Your task to perform on an android device: turn on airplane mode Image 0: 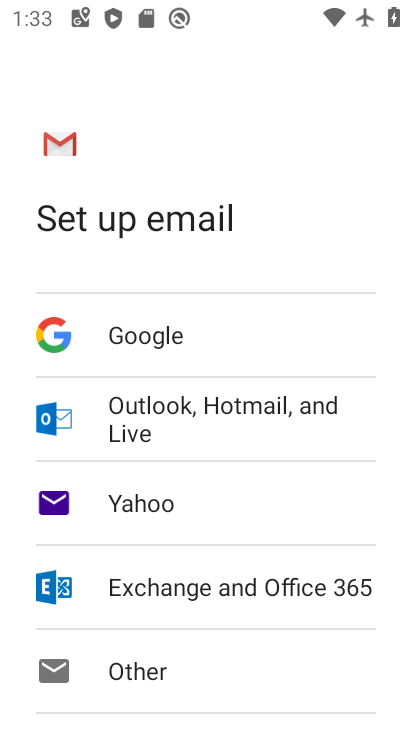
Step 0: press home button
Your task to perform on an android device: turn on airplane mode Image 1: 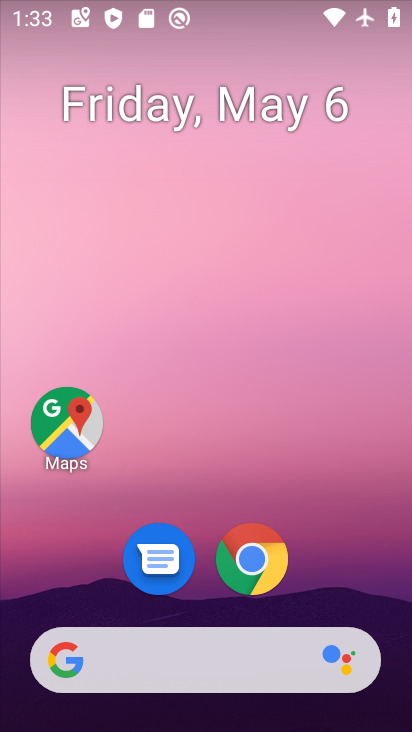
Step 1: drag from (187, 651) to (340, 28)
Your task to perform on an android device: turn on airplane mode Image 2: 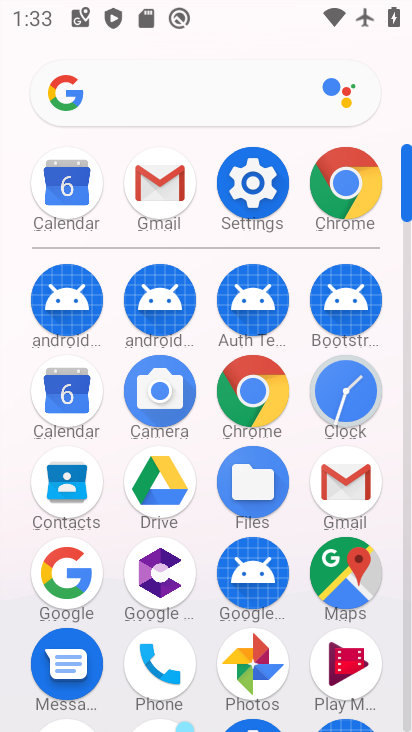
Step 2: click (247, 186)
Your task to perform on an android device: turn on airplane mode Image 3: 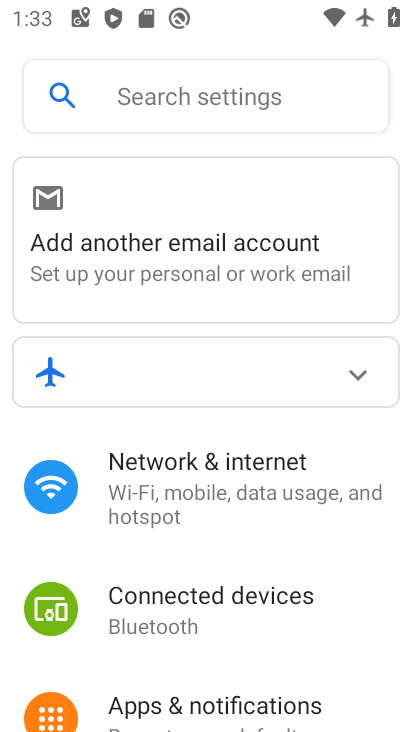
Step 3: click (231, 470)
Your task to perform on an android device: turn on airplane mode Image 4: 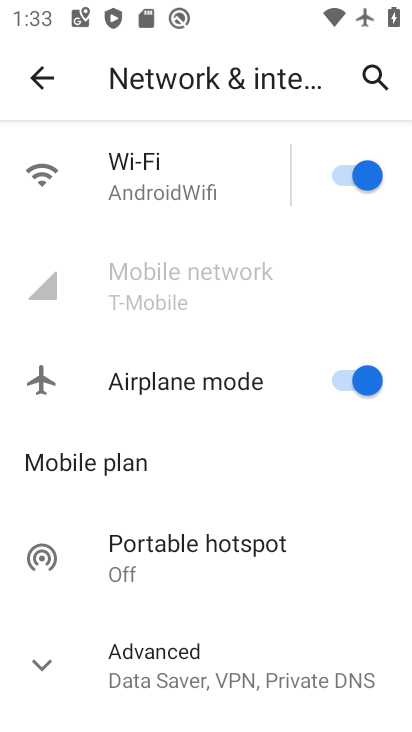
Step 4: task complete